Your task to perform on an android device: Search for Italian restaurants on Maps Image 0: 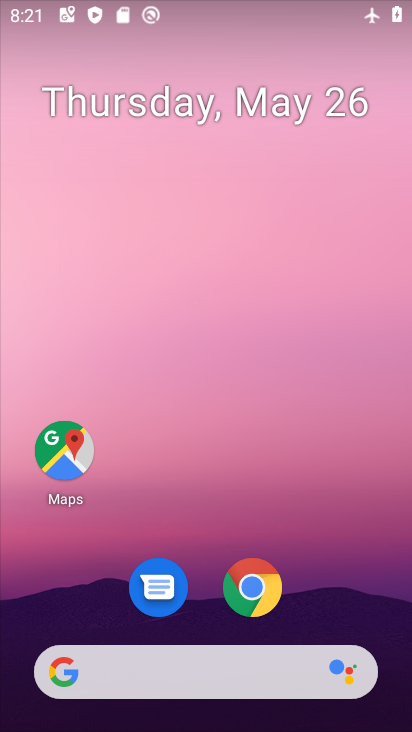
Step 0: click (60, 446)
Your task to perform on an android device: Search for Italian restaurants on Maps Image 1: 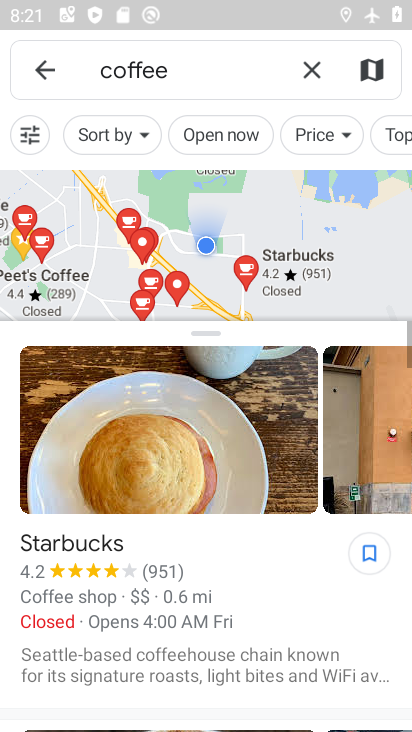
Step 1: click (316, 69)
Your task to perform on an android device: Search for Italian restaurants on Maps Image 2: 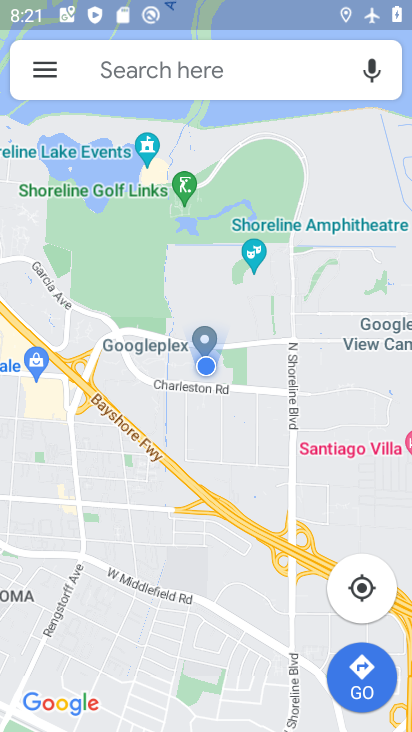
Step 2: click (237, 59)
Your task to perform on an android device: Search for Italian restaurants on Maps Image 3: 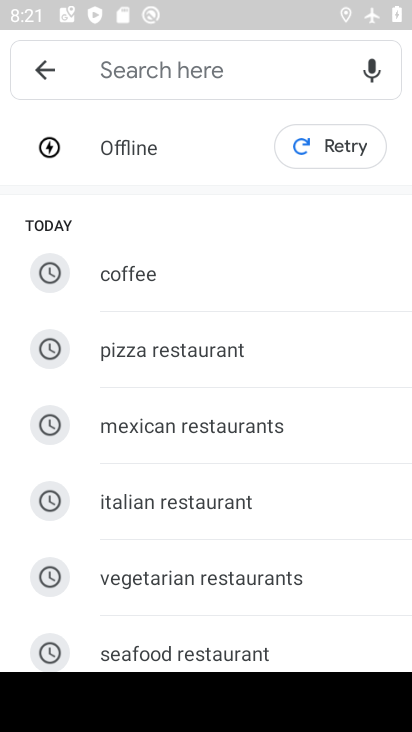
Step 3: click (183, 485)
Your task to perform on an android device: Search for Italian restaurants on Maps Image 4: 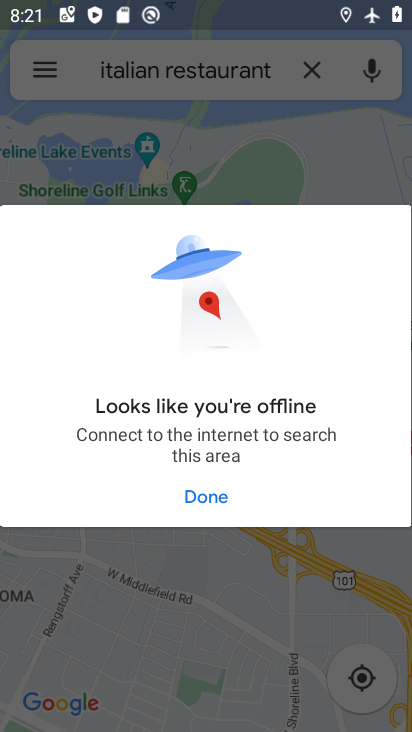
Step 4: task complete